Your task to perform on an android device: Do I have any events tomorrow? Image 0: 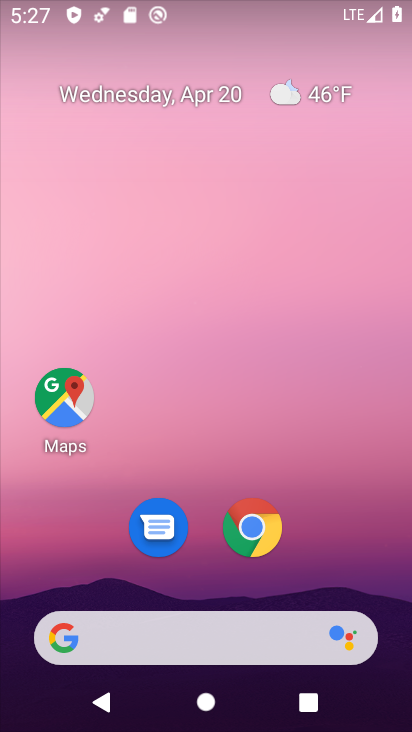
Step 0: drag from (202, 552) to (187, 164)
Your task to perform on an android device: Do I have any events tomorrow? Image 1: 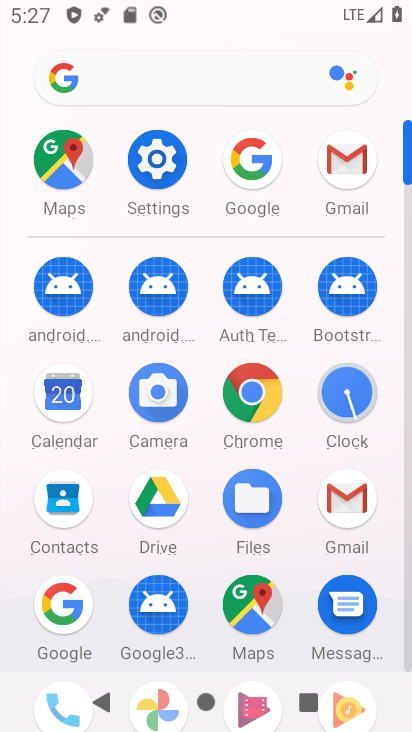
Step 1: click (62, 405)
Your task to perform on an android device: Do I have any events tomorrow? Image 2: 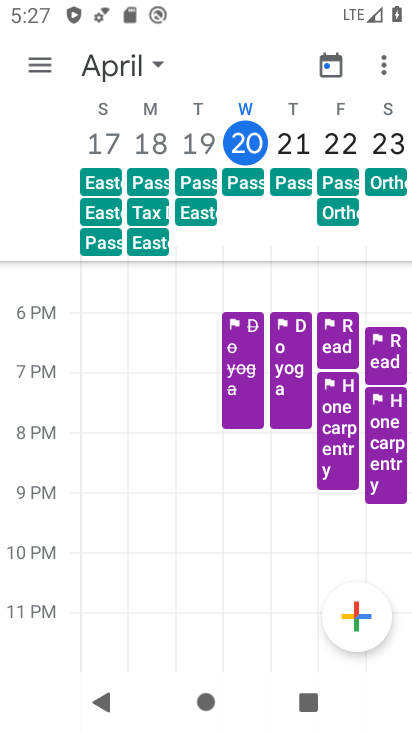
Step 2: task complete